Your task to perform on an android device: set the timer Image 0: 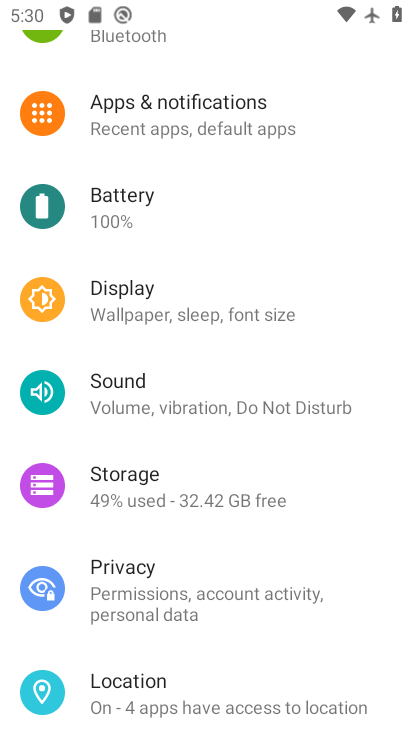
Step 0: press home button
Your task to perform on an android device: set the timer Image 1: 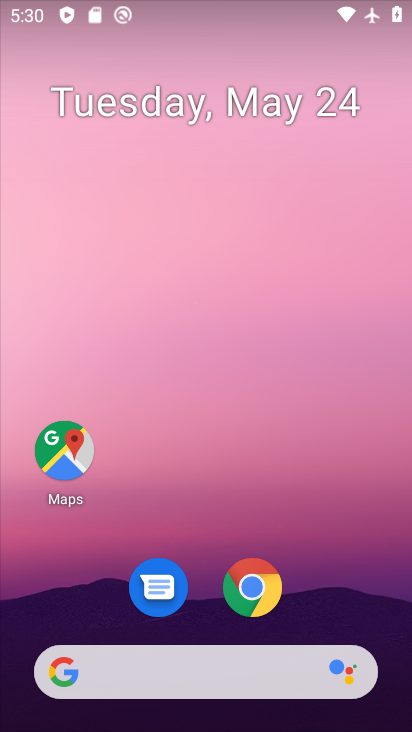
Step 1: drag from (347, 519) to (216, 59)
Your task to perform on an android device: set the timer Image 2: 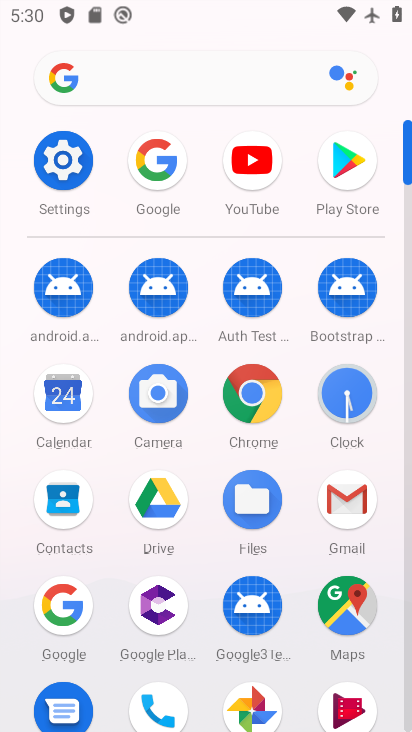
Step 2: click (347, 385)
Your task to perform on an android device: set the timer Image 3: 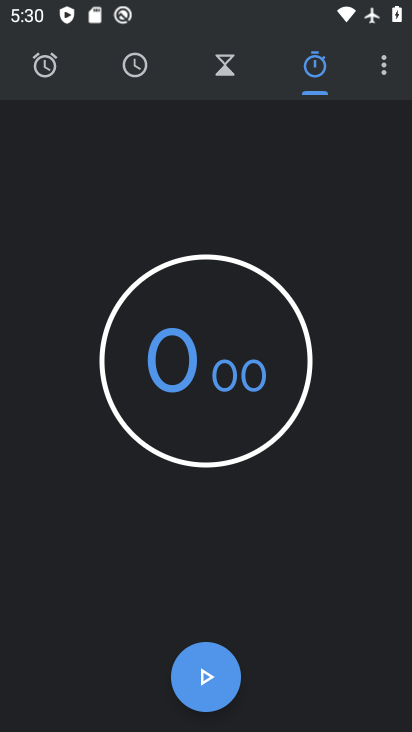
Step 3: click (237, 72)
Your task to perform on an android device: set the timer Image 4: 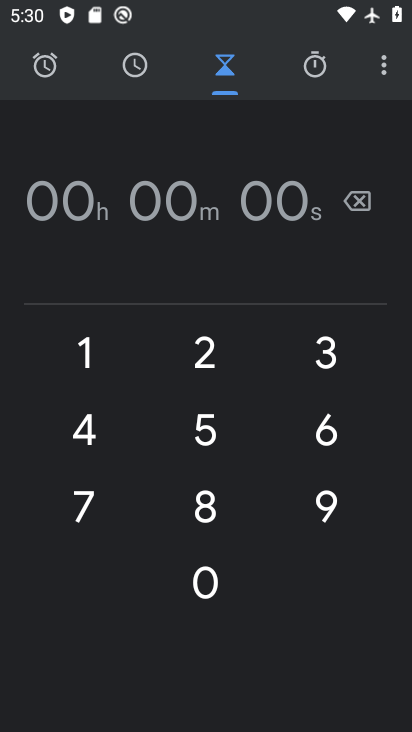
Step 4: click (92, 343)
Your task to perform on an android device: set the timer Image 5: 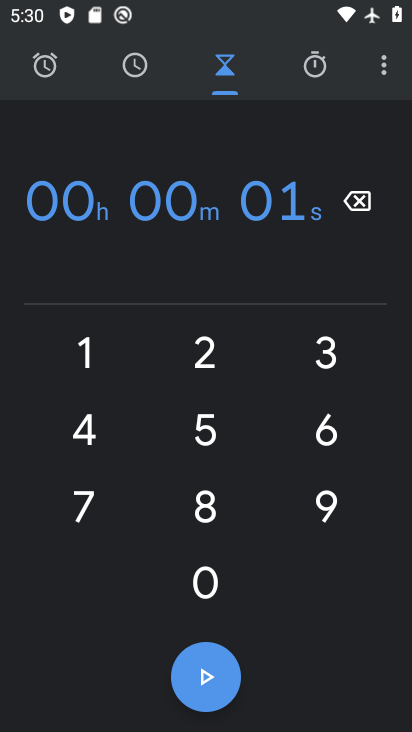
Step 5: click (92, 343)
Your task to perform on an android device: set the timer Image 6: 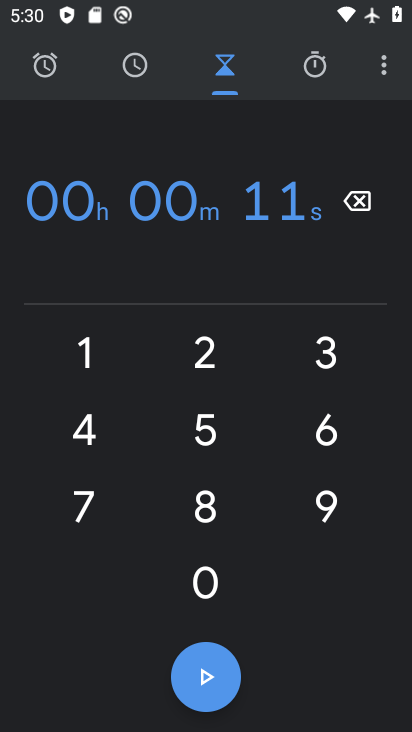
Step 6: click (92, 343)
Your task to perform on an android device: set the timer Image 7: 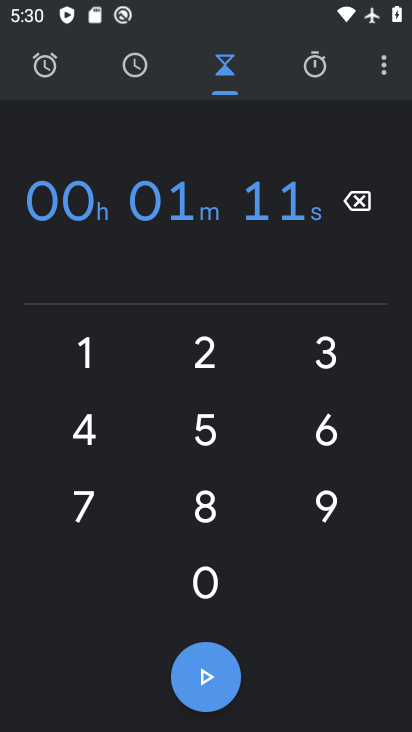
Step 7: click (92, 343)
Your task to perform on an android device: set the timer Image 8: 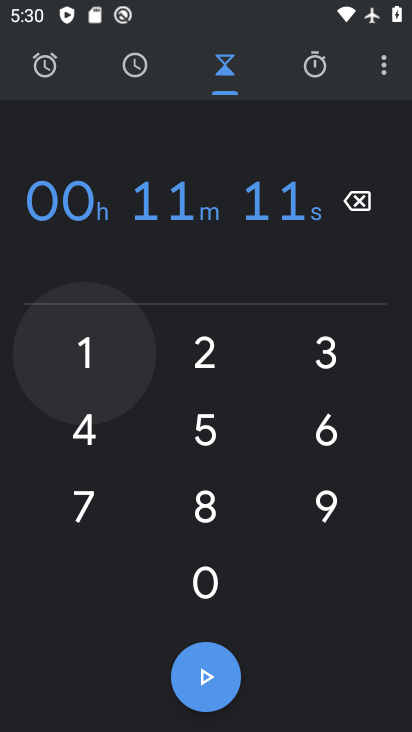
Step 8: click (93, 342)
Your task to perform on an android device: set the timer Image 9: 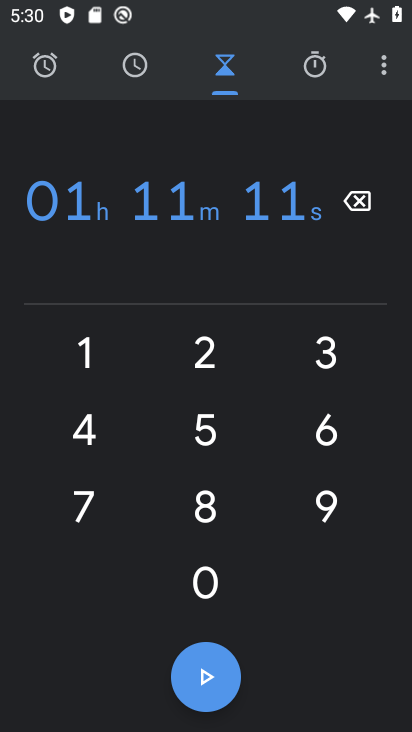
Step 9: click (93, 342)
Your task to perform on an android device: set the timer Image 10: 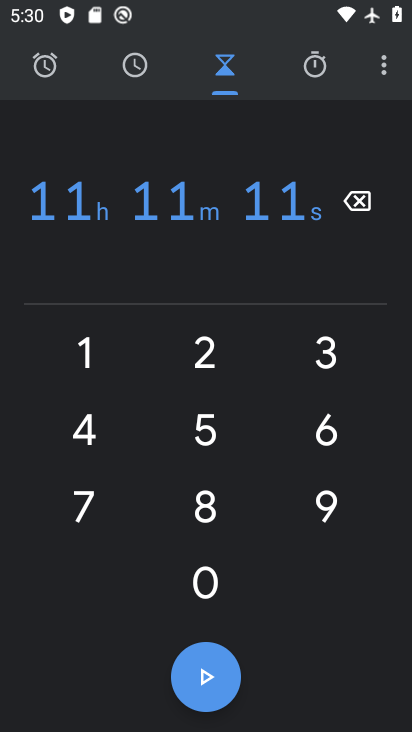
Step 10: click (204, 675)
Your task to perform on an android device: set the timer Image 11: 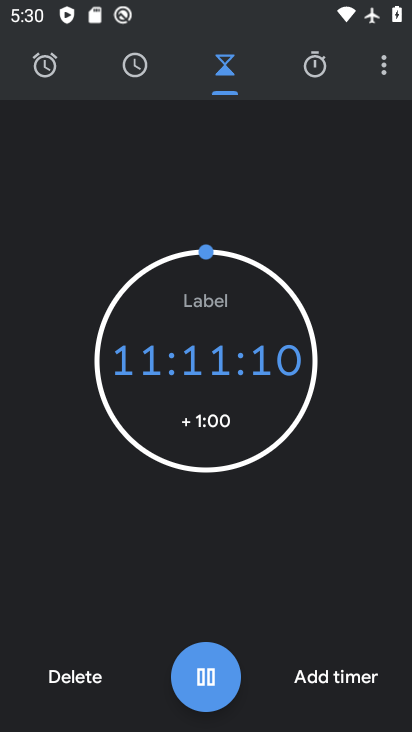
Step 11: task complete